Your task to perform on an android device: Go to display settings Image 0: 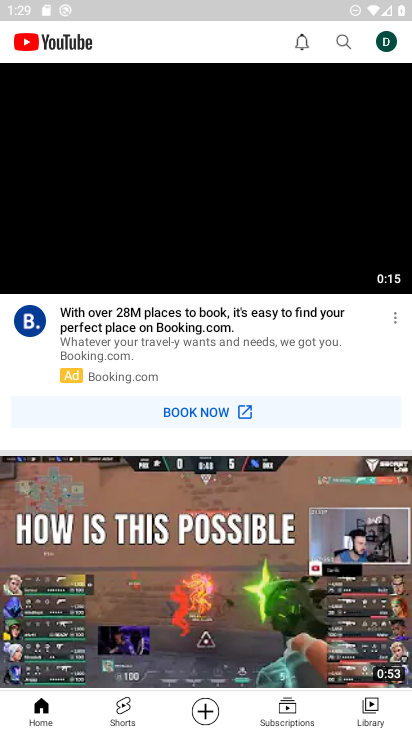
Step 0: press back button
Your task to perform on an android device: Go to display settings Image 1: 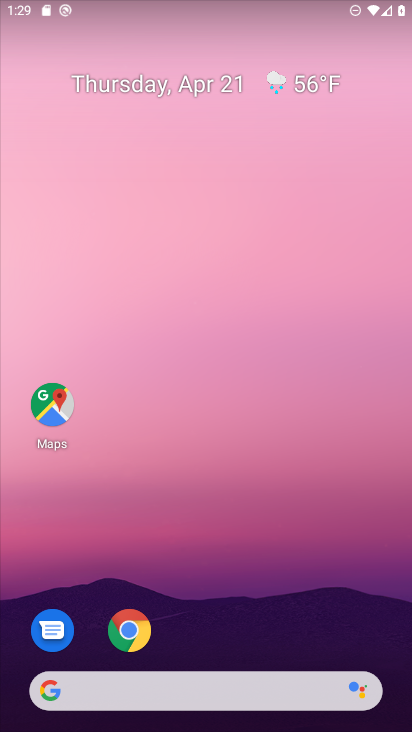
Step 1: drag from (171, 687) to (212, 25)
Your task to perform on an android device: Go to display settings Image 2: 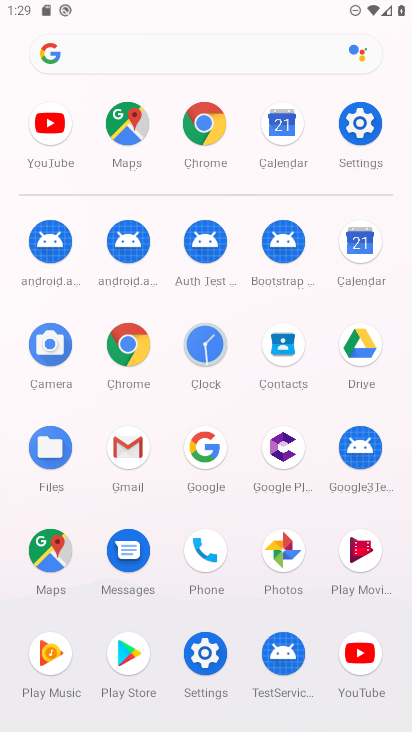
Step 2: click (364, 122)
Your task to perform on an android device: Go to display settings Image 3: 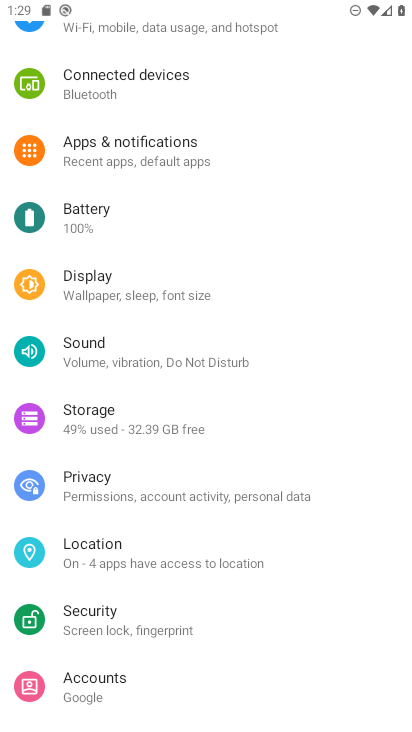
Step 3: click (110, 287)
Your task to perform on an android device: Go to display settings Image 4: 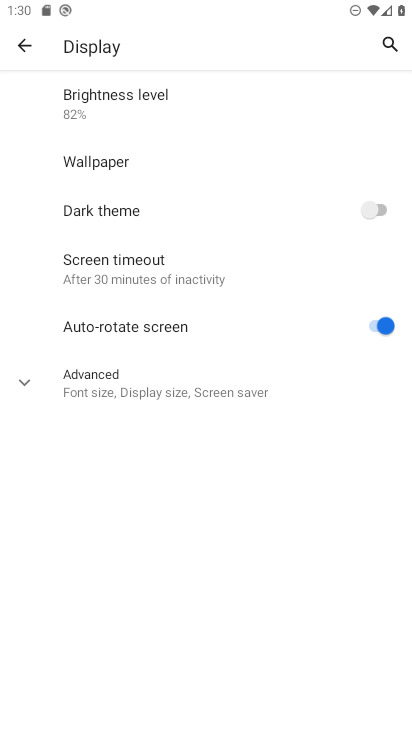
Step 4: task complete